Your task to perform on an android device: turn on airplane mode Image 0: 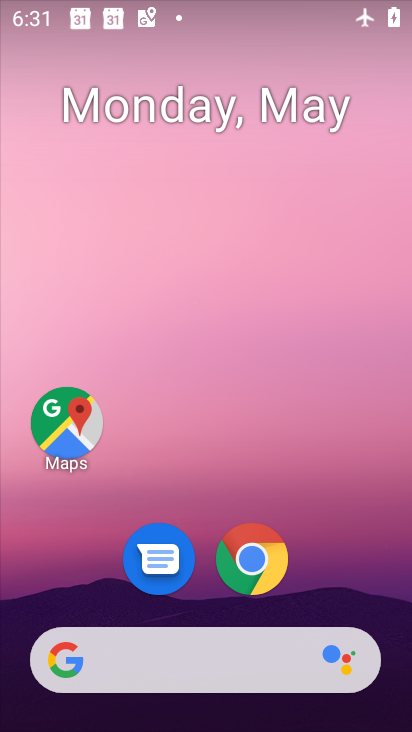
Step 0: drag from (392, 658) to (285, 199)
Your task to perform on an android device: turn on airplane mode Image 1: 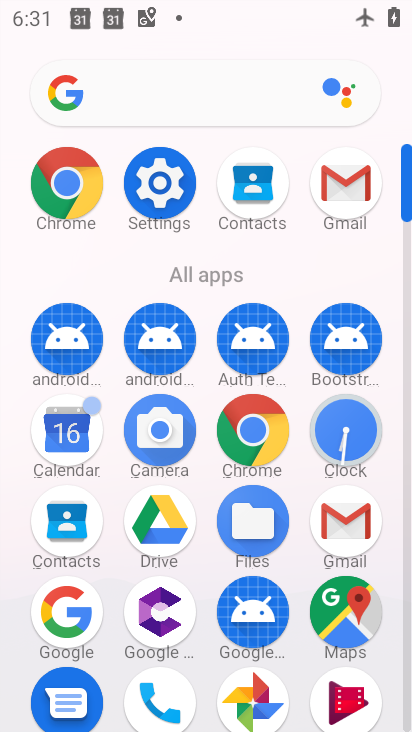
Step 1: task complete